Your task to perform on an android device: delete browsing data in the chrome app Image 0: 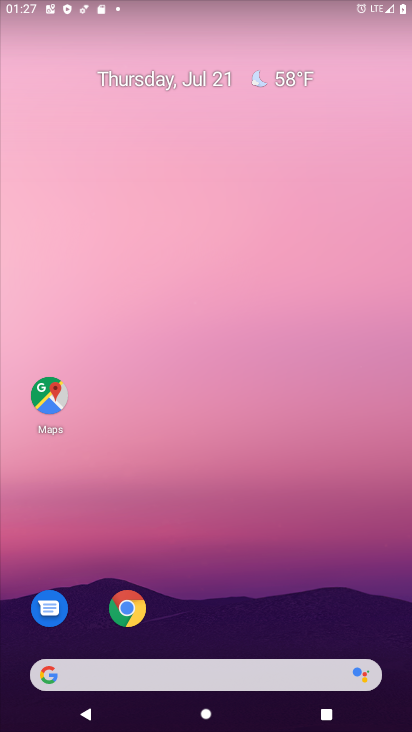
Step 0: press home button
Your task to perform on an android device: delete browsing data in the chrome app Image 1: 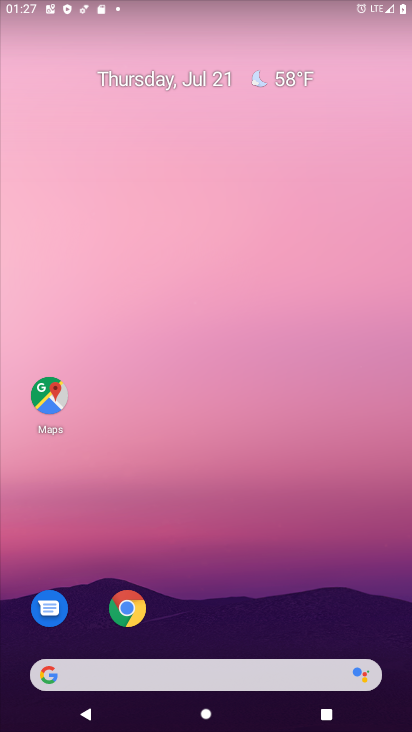
Step 1: click (125, 602)
Your task to perform on an android device: delete browsing data in the chrome app Image 2: 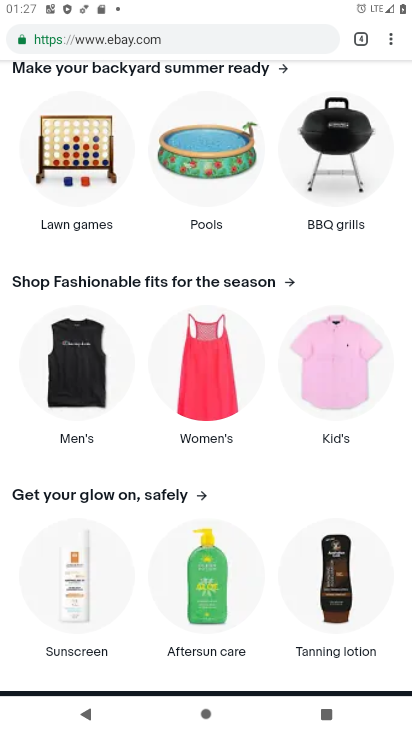
Step 2: click (390, 32)
Your task to perform on an android device: delete browsing data in the chrome app Image 3: 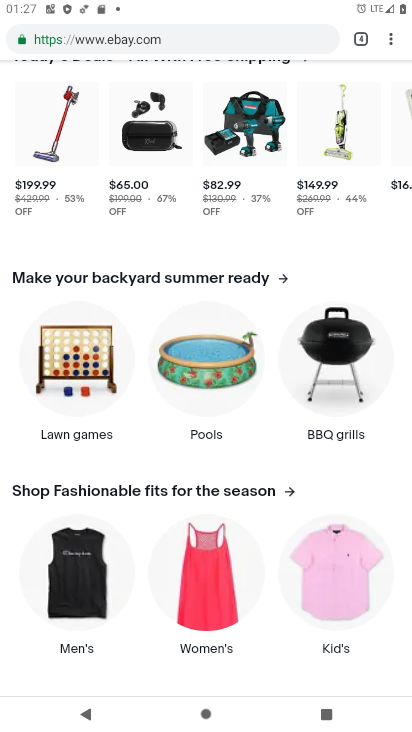
Step 3: click (387, 38)
Your task to perform on an android device: delete browsing data in the chrome app Image 4: 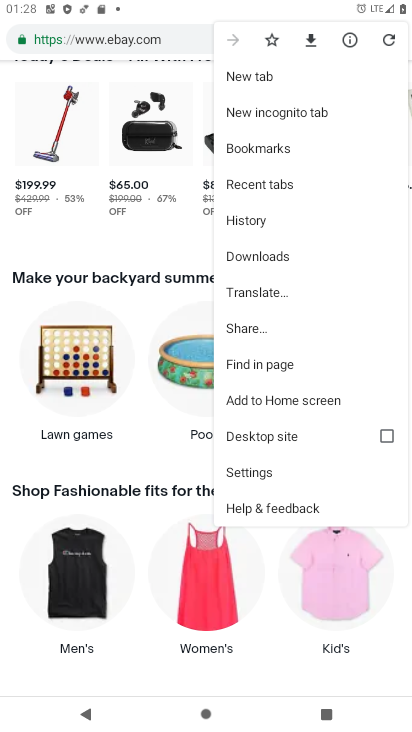
Step 4: click (273, 220)
Your task to perform on an android device: delete browsing data in the chrome app Image 5: 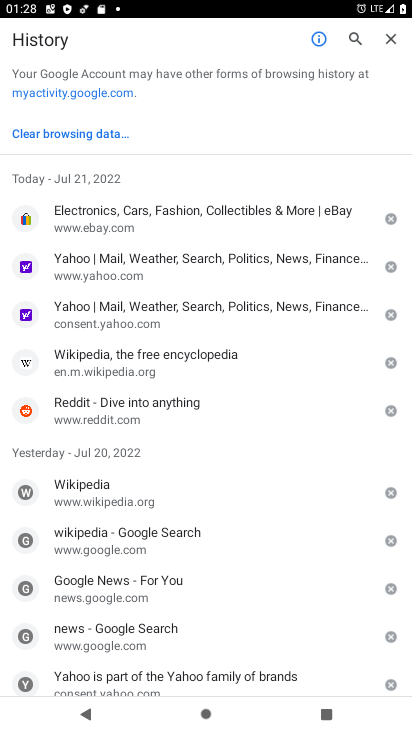
Step 5: click (53, 132)
Your task to perform on an android device: delete browsing data in the chrome app Image 6: 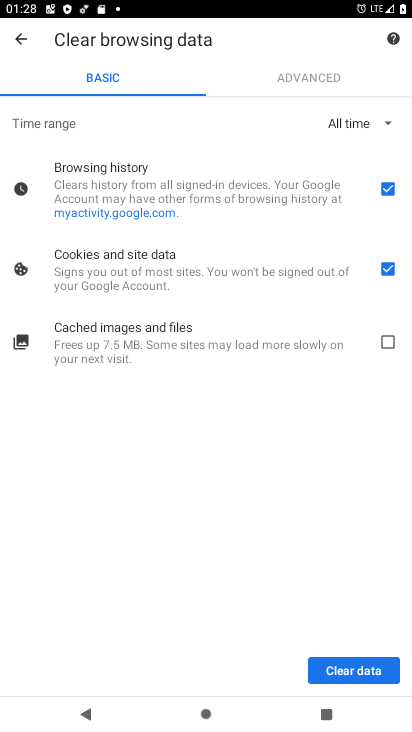
Step 6: click (391, 266)
Your task to perform on an android device: delete browsing data in the chrome app Image 7: 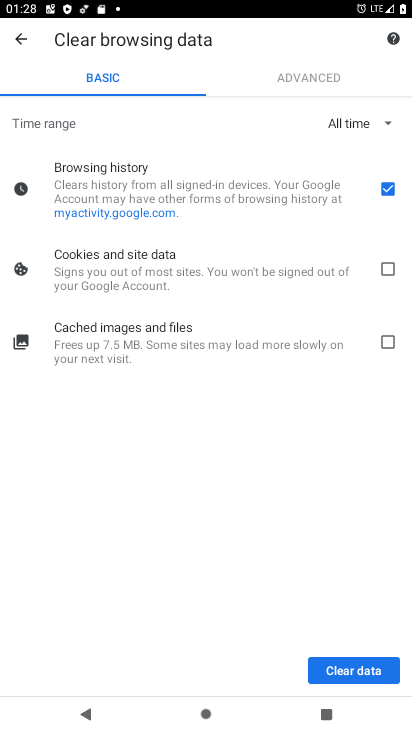
Step 7: click (357, 666)
Your task to perform on an android device: delete browsing data in the chrome app Image 8: 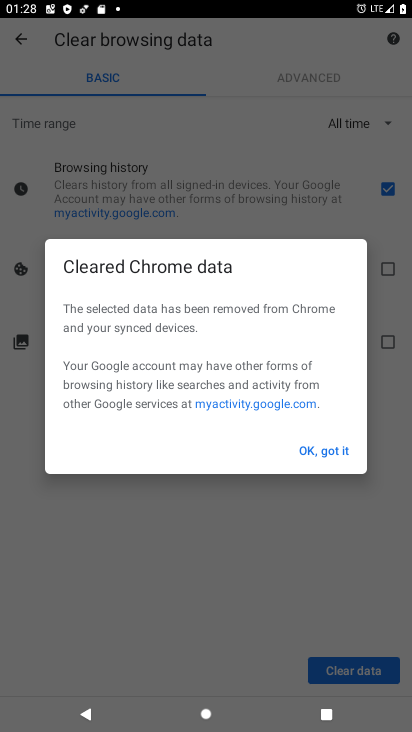
Step 8: click (336, 447)
Your task to perform on an android device: delete browsing data in the chrome app Image 9: 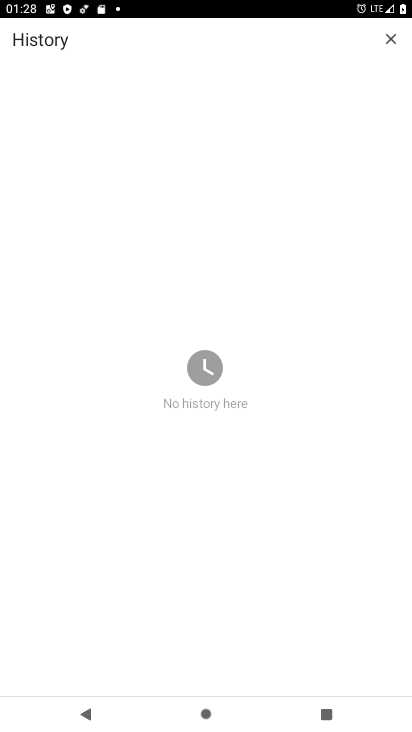
Step 9: task complete